Your task to perform on an android device: turn off javascript in the chrome app Image 0: 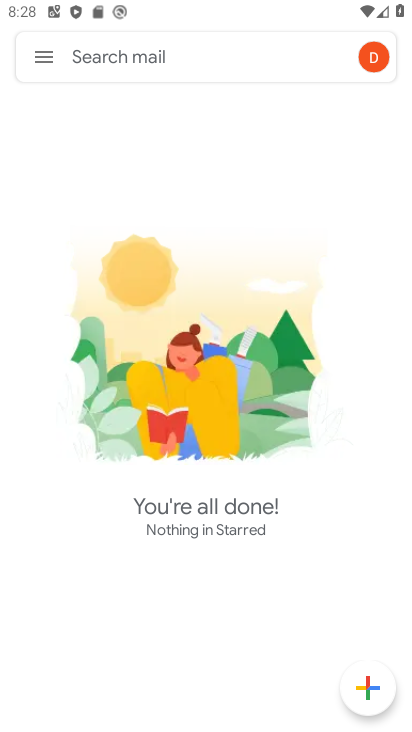
Step 0: press home button
Your task to perform on an android device: turn off javascript in the chrome app Image 1: 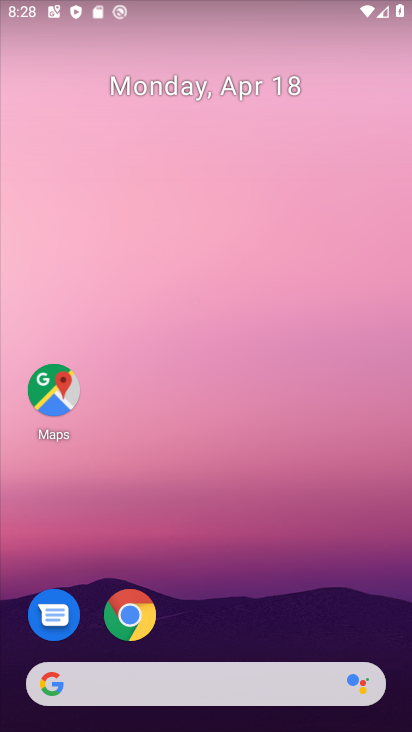
Step 1: click (127, 612)
Your task to perform on an android device: turn off javascript in the chrome app Image 2: 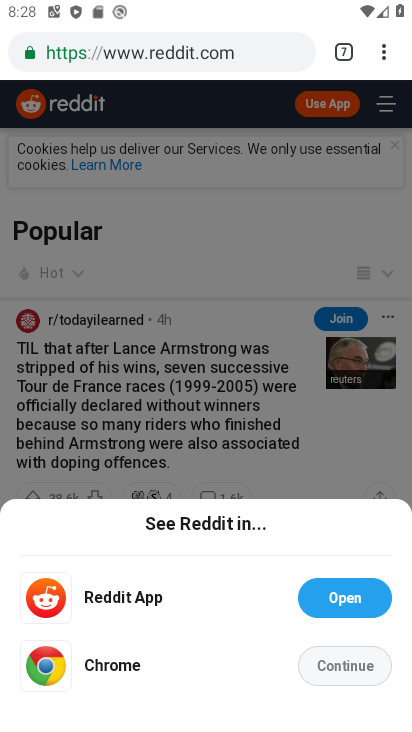
Step 2: drag from (384, 47) to (240, 619)
Your task to perform on an android device: turn off javascript in the chrome app Image 3: 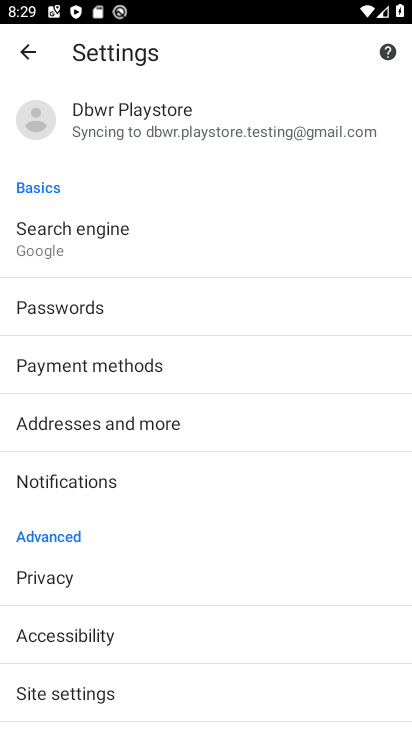
Step 3: click (195, 695)
Your task to perform on an android device: turn off javascript in the chrome app Image 4: 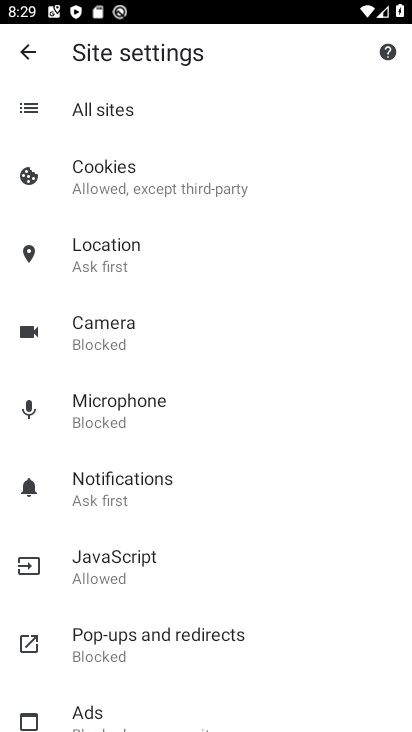
Step 4: click (202, 561)
Your task to perform on an android device: turn off javascript in the chrome app Image 5: 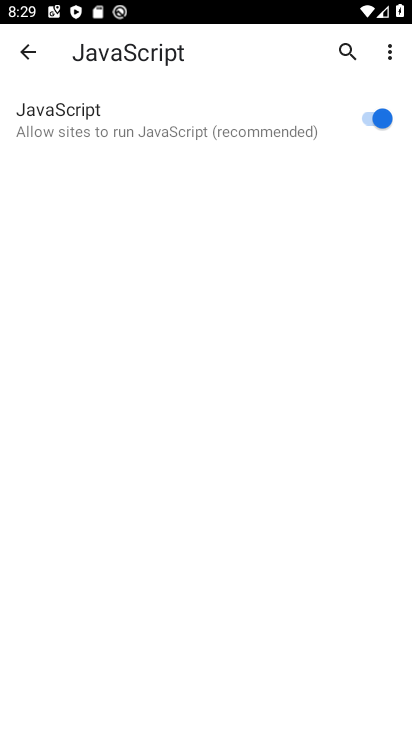
Step 5: click (370, 114)
Your task to perform on an android device: turn off javascript in the chrome app Image 6: 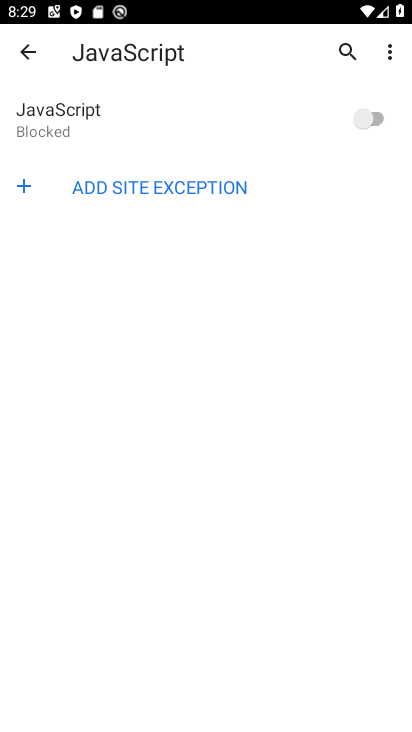
Step 6: task complete